Your task to perform on an android device: Is it going to rain this weekend? Image 0: 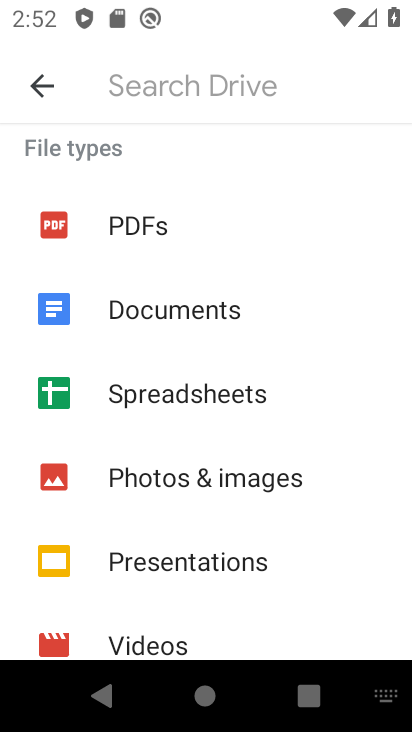
Step 0: press home button
Your task to perform on an android device: Is it going to rain this weekend? Image 1: 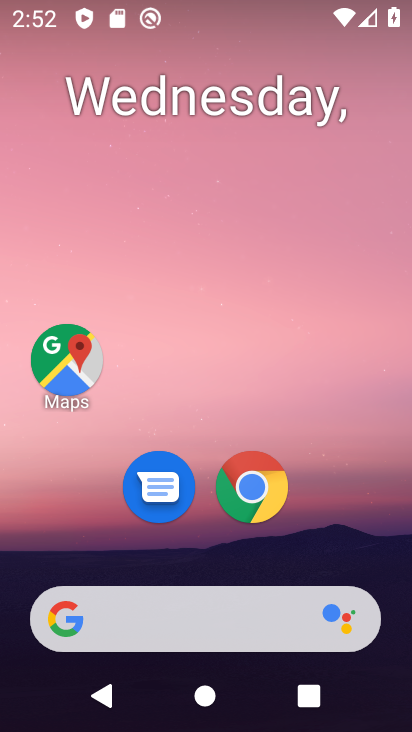
Step 1: drag from (221, 582) to (254, 99)
Your task to perform on an android device: Is it going to rain this weekend? Image 2: 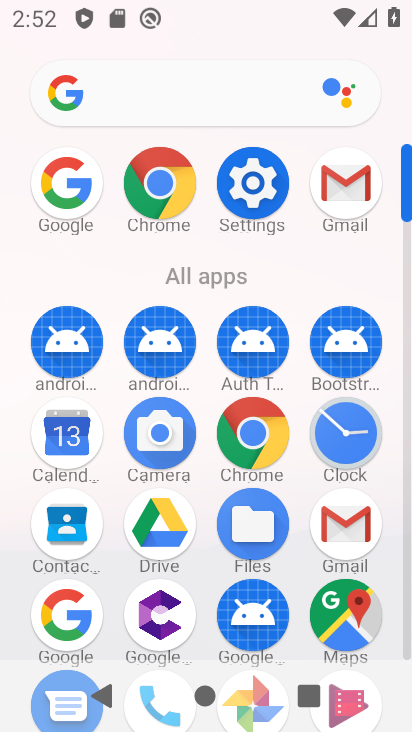
Step 2: drag from (213, 494) to (268, 215)
Your task to perform on an android device: Is it going to rain this weekend? Image 3: 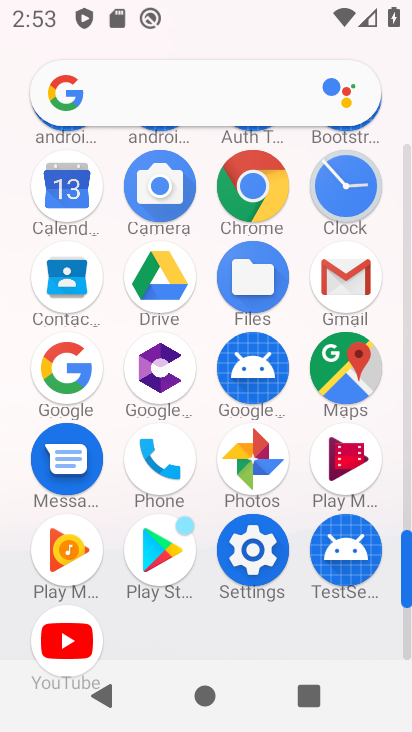
Step 3: click (66, 378)
Your task to perform on an android device: Is it going to rain this weekend? Image 4: 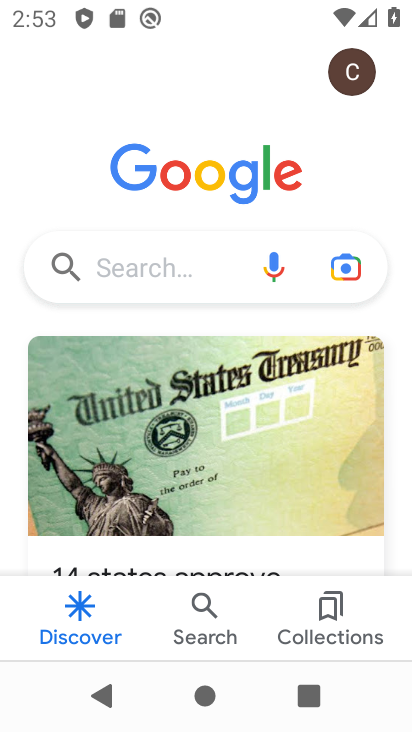
Step 4: click (178, 267)
Your task to perform on an android device: Is it going to rain this weekend? Image 5: 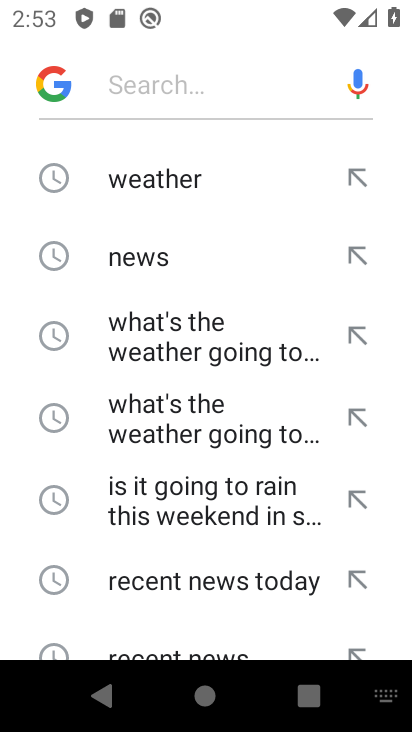
Step 5: click (354, 166)
Your task to perform on an android device: Is it going to rain this weekend? Image 6: 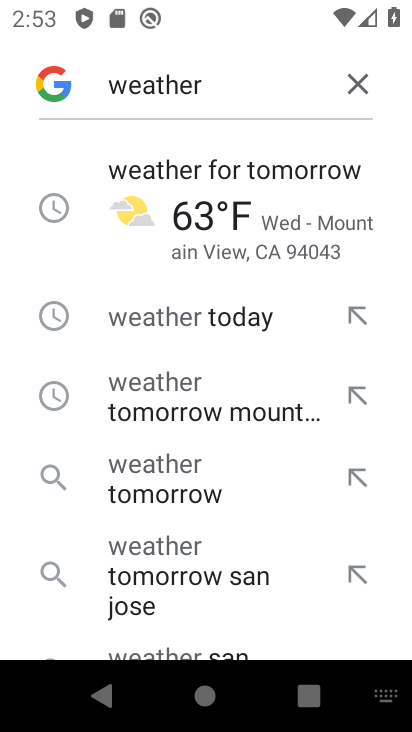
Step 6: type "weekend"
Your task to perform on an android device: Is it going to rain this weekend? Image 7: 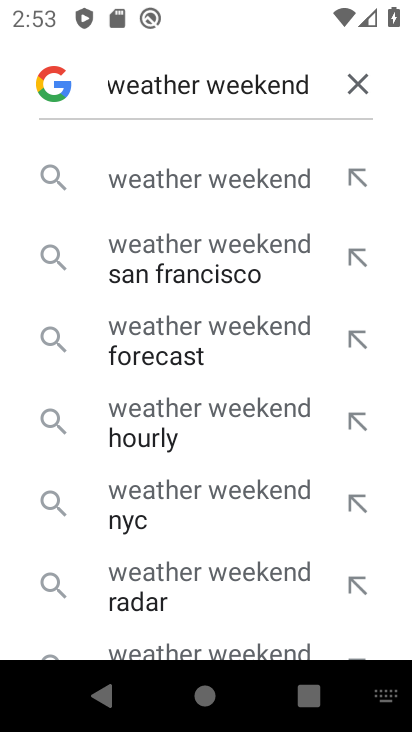
Step 7: click (266, 183)
Your task to perform on an android device: Is it going to rain this weekend? Image 8: 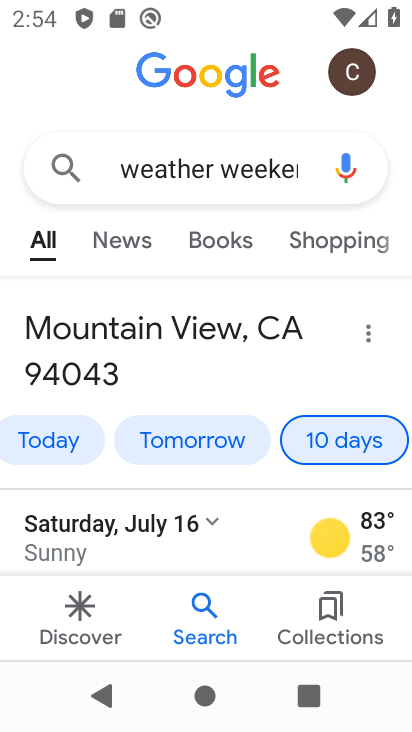
Step 8: task complete